Your task to perform on an android device: open a new tab in the chrome app Image 0: 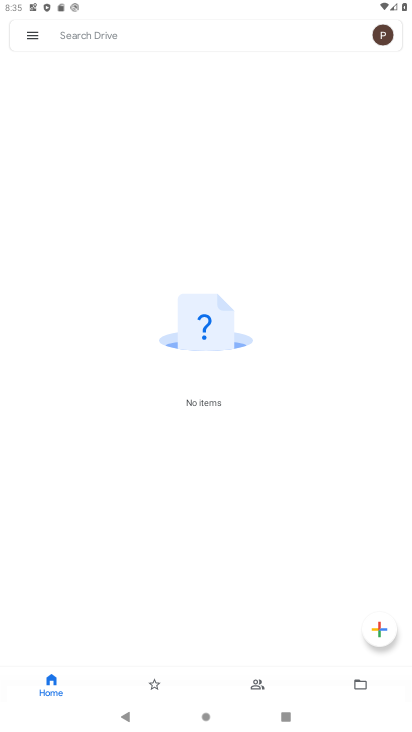
Step 0: press home button
Your task to perform on an android device: open a new tab in the chrome app Image 1: 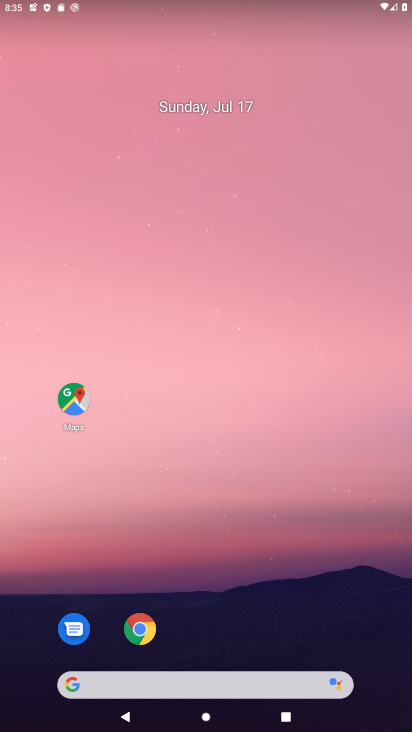
Step 1: click (135, 632)
Your task to perform on an android device: open a new tab in the chrome app Image 2: 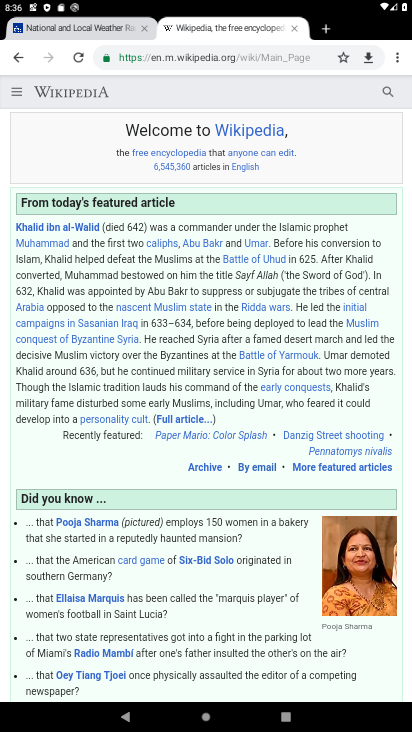
Step 2: click (397, 63)
Your task to perform on an android device: open a new tab in the chrome app Image 3: 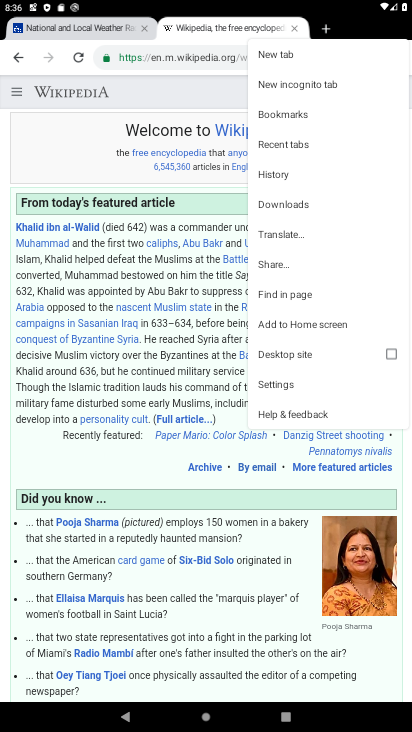
Step 3: click (274, 58)
Your task to perform on an android device: open a new tab in the chrome app Image 4: 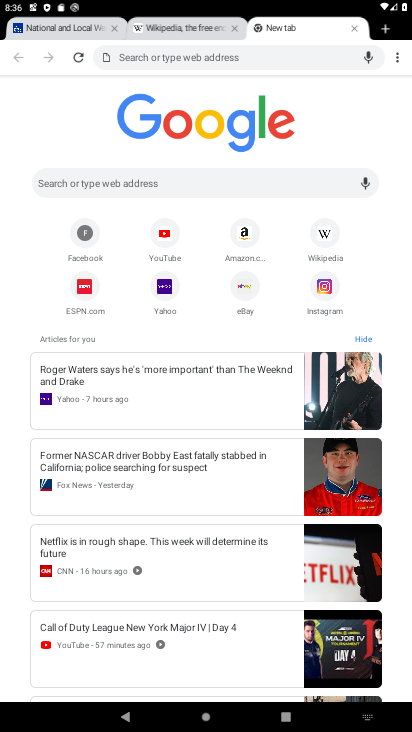
Step 4: task complete